Your task to perform on an android device: Search for sushi restaurants on Maps Image 0: 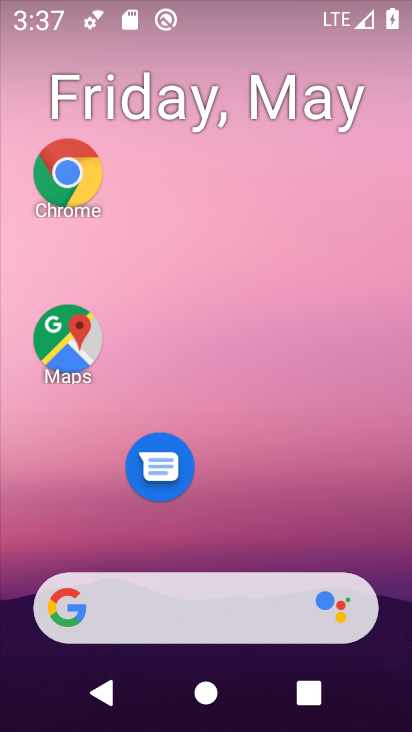
Step 0: click (87, 335)
Your task to perform on an android device: Search for sushi restaurants on Maps Image 1: 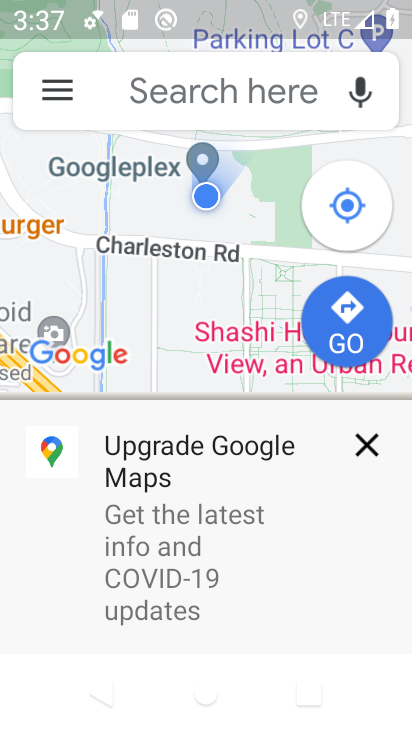
Step 1: click (368, 443)
Your task to perform on an android device: Search for sushi restaurants on Maps Image 2: 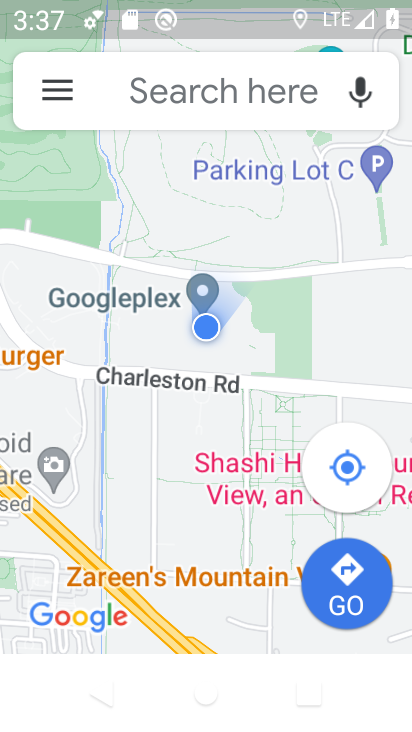
Step 2: click (149, 86)
Your task to perform on an android device: Search for sushi restaurants on Maps Image 3: 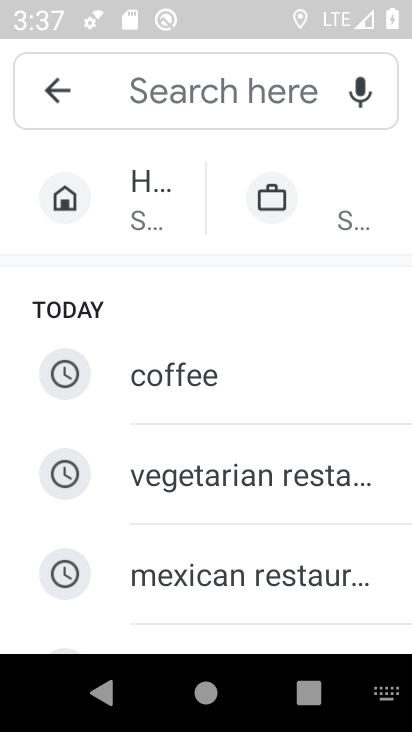
Step 3: drag from (209, 561) to (230, 172)
Your task to perform on an android device: Search for sushi restaurants on Maps Image 4: 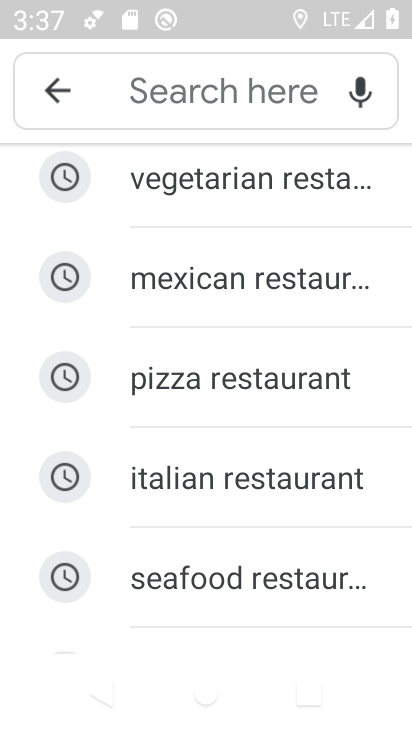
Step 4: drag from (221, 527) to (197, 235)
Your task to perform on an android device: Search for sushi restaurants on Maps Image 5: 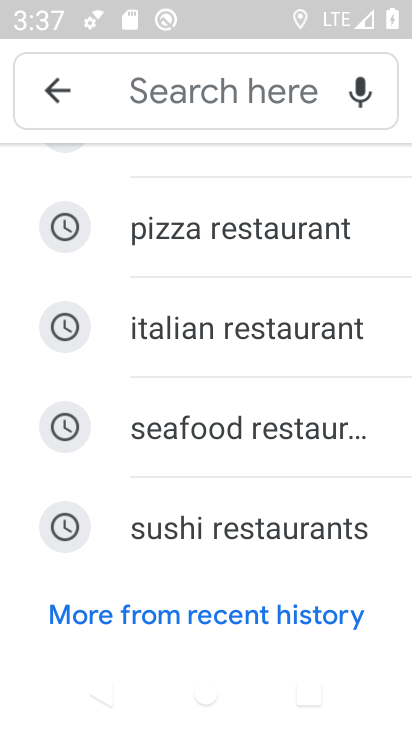
Step 5: click (207, 519)
Your task to perform on an android device: Search for sushi restaurants on Maps Image 6: 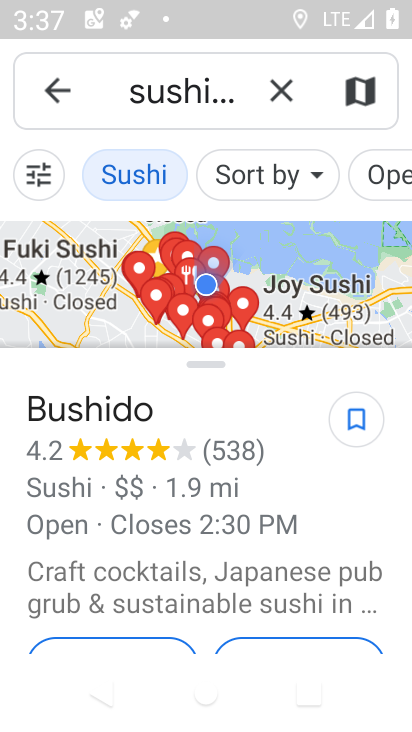
Step 6: task complete